Your task to perform on an android device: turn off notifications in google photos Image 0: 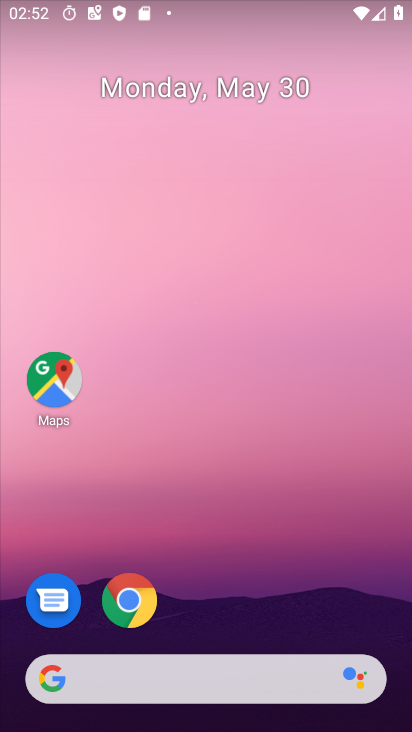
Step 0: drag from (299, 610) to (331, 64)
Your task to perform on an android device: turn off notifications in google photos Image 1: 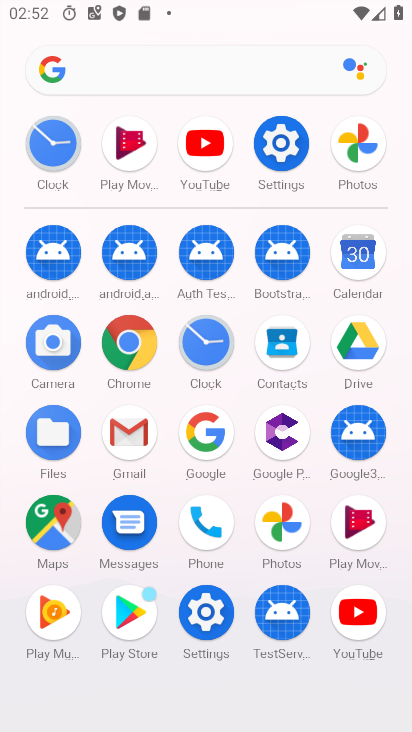
Step 1: click (294, 522)
Your task to perform on an android device: turn off notifications in google photos Image 2: 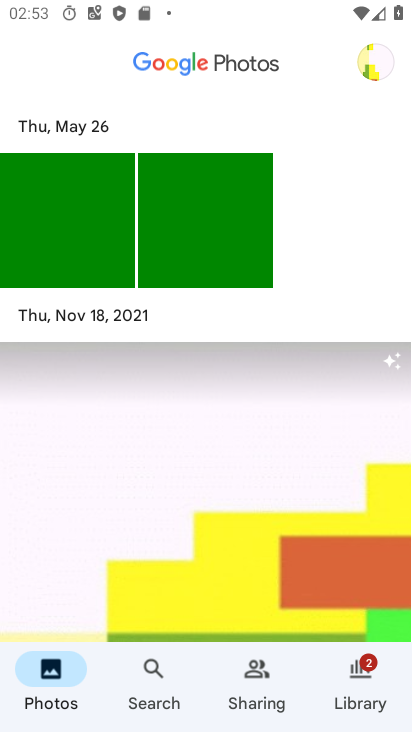
Step 2: click (369, 68)
Your task to perform on an android device: turn off notifications in google photos Image 3: 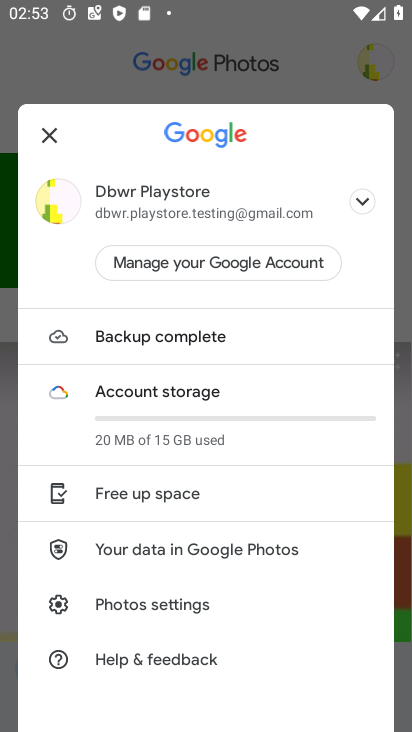
Step 3: click (165, 603)
Your task to perform on an android device: turn off notifications in google photos Image 4: 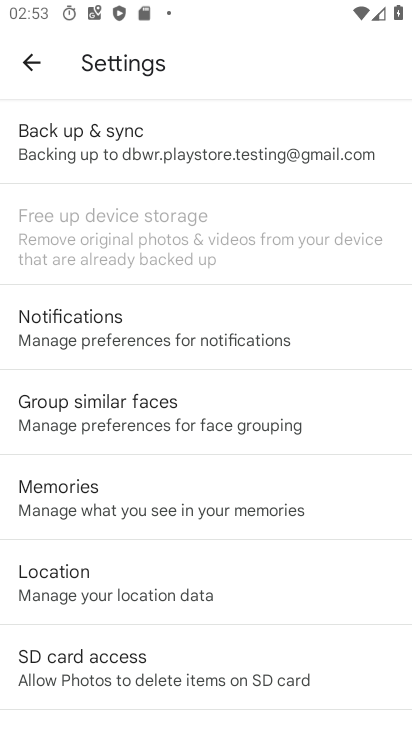
Step 4: click (221, 327)
Your task to perform on an android device: turn off notifications in google photos Image 5: 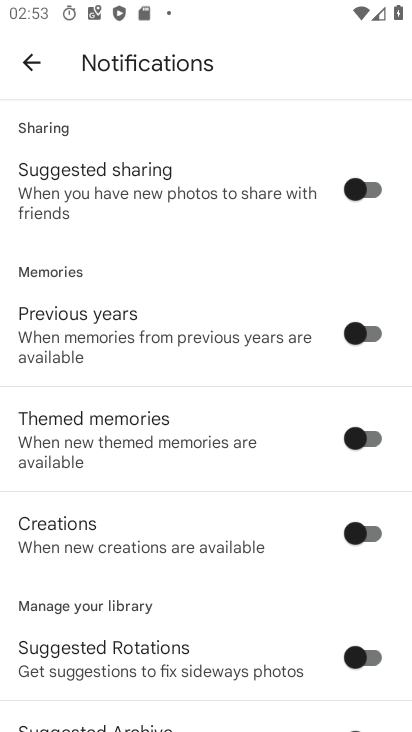
Step 5: drag from (254, 660) to (279, 147)
Your task to perform on an android device: turn off notifications in google photos Image 6: 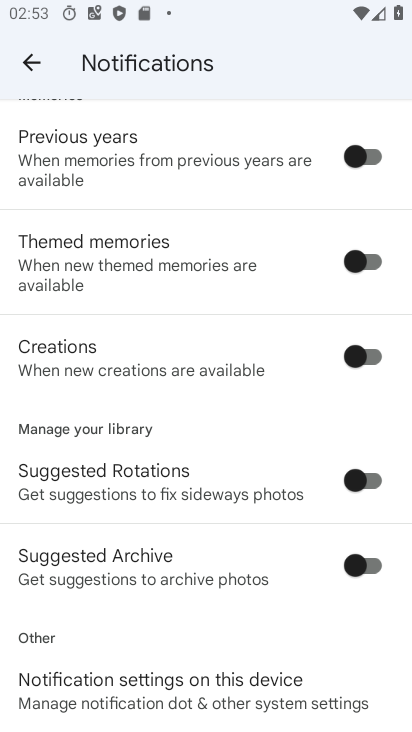
Step 6: click (202, 687)
Your task to perform on an android device: turn off notifications in google photos Image 7: 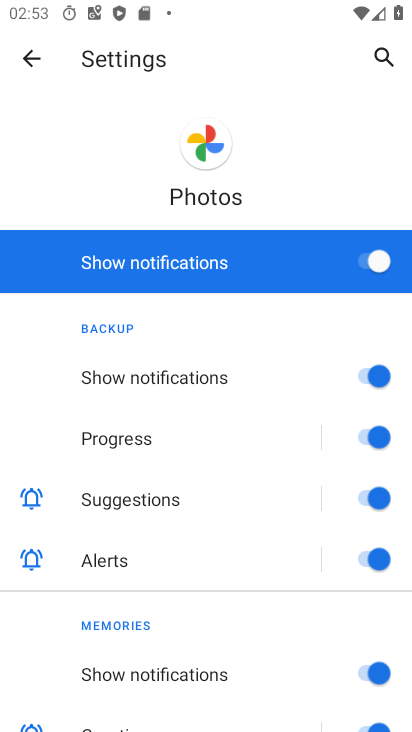
Step 7: click (368, 254)
Your task to perform on an android device: turn off notifications in google photos Image 8: 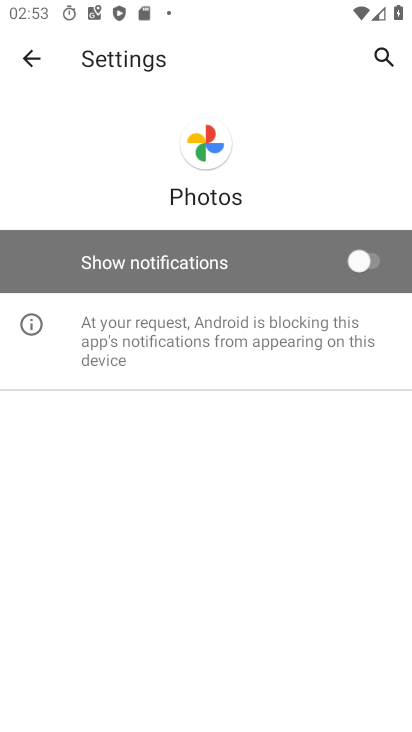
Step 8: task complete